Your task to perform on an android device: Open my contact list Image 0: 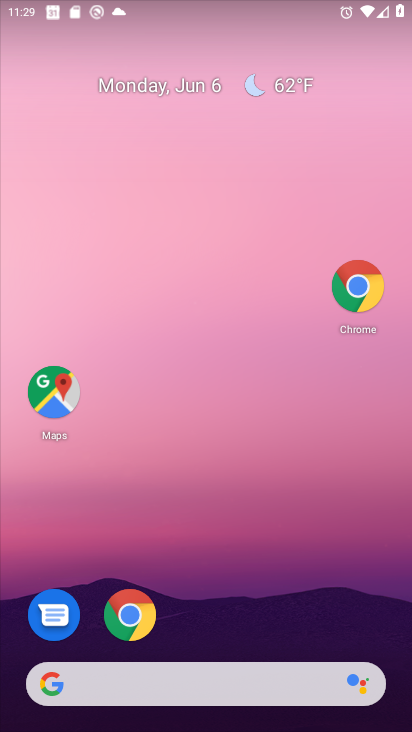
Step 0: drag from (245, 692) to (221, 300)
Your task to perform on an android device: Open my contact list Image 1: 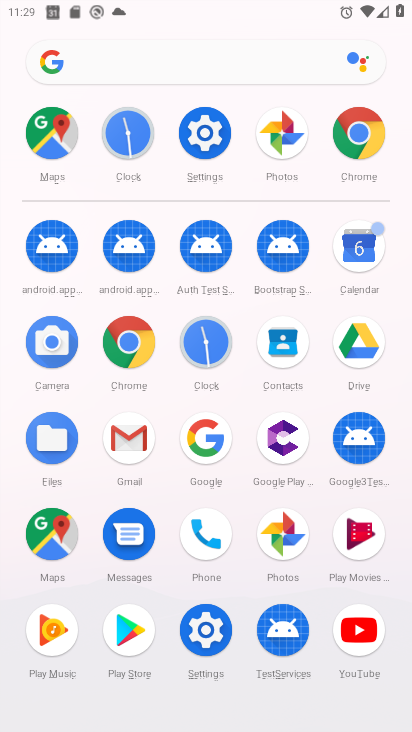
Step 1: click (282, 346)
Your task to perform on an android device: Open my contact list Image 2: 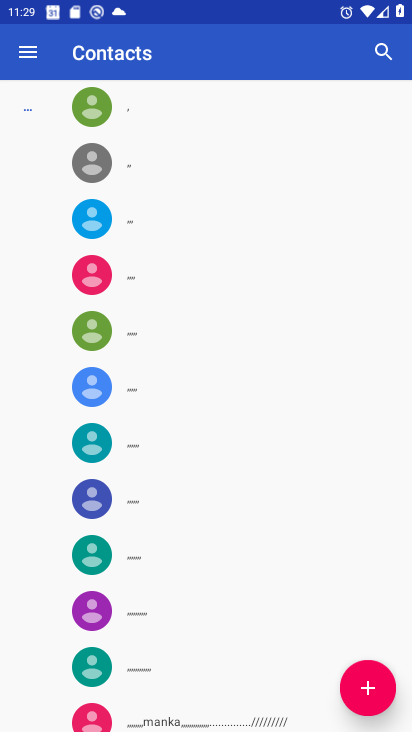
Step 2: task complete